Your task to perform on an android device: Show me popular games on the Play Store Image 0: 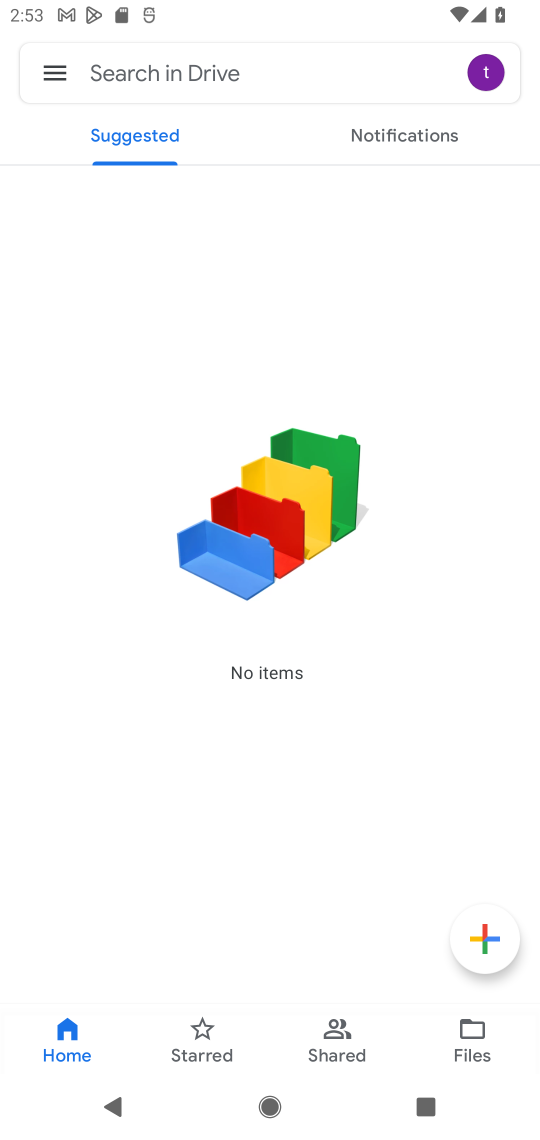
Step 0: press home button
Your task to perform on an android device: Show me popular games on the Play Store Image 1: 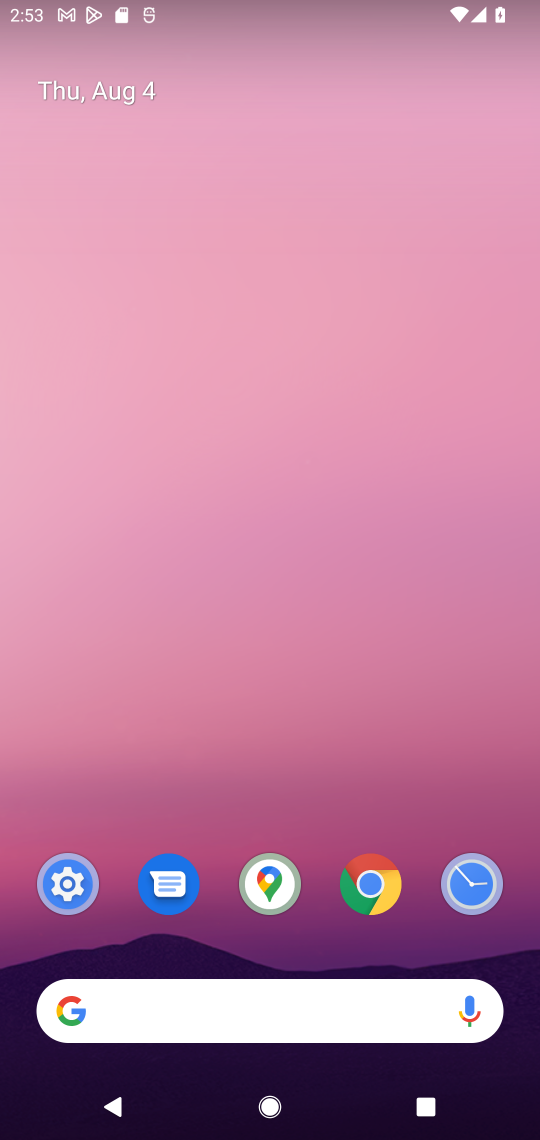
Step 1: drag from (255, 963) to (242, 5)
Your task to perform on an android device: Show me popular games on the Play Store Image 2: 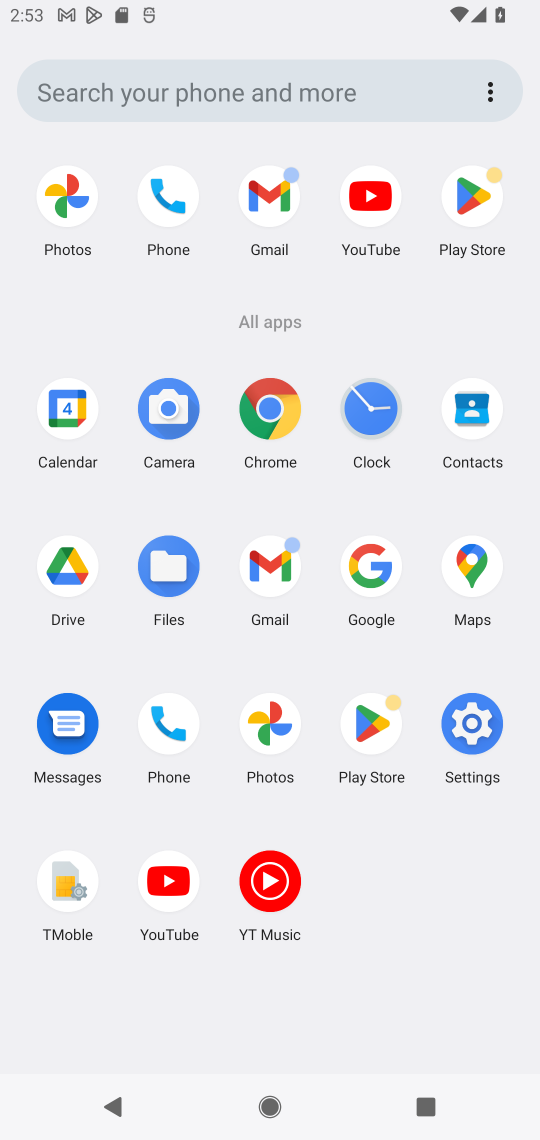
Step 2: click (389, 736)
Your task to perform on an android device: Show me popular games on the Play Store Image 3: 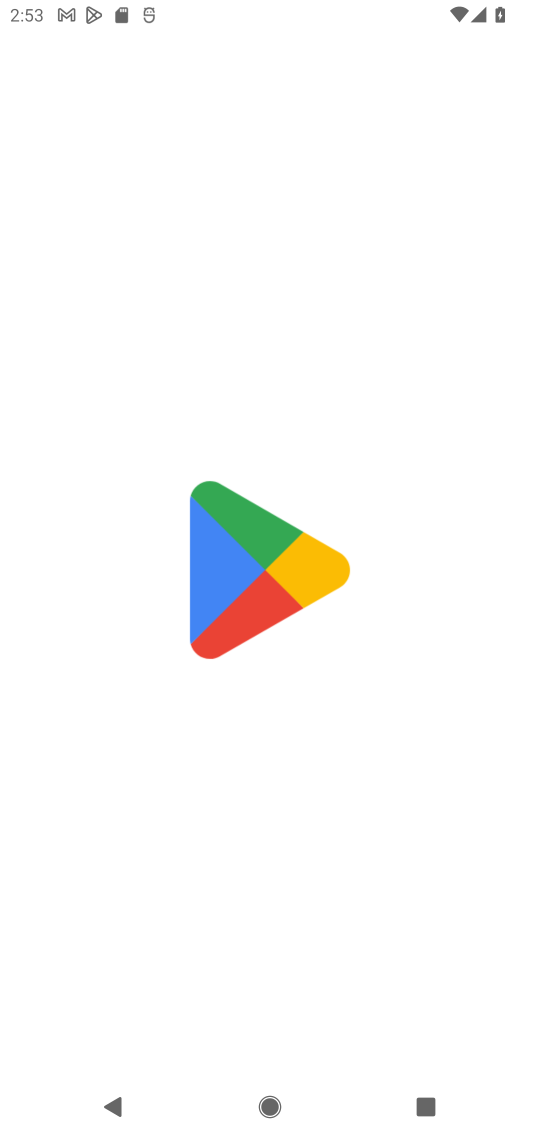
Step 3: task complete